Your task to perform on an android device: toggle data saver in the chrome app Image 0: 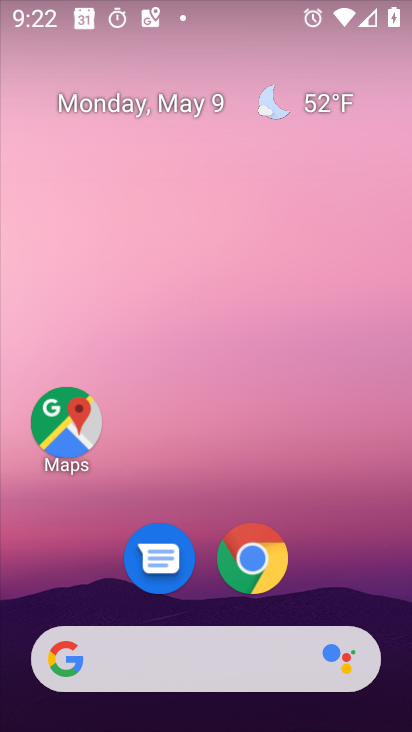
Step 0: click (269, 572)
Your task to perform on an android device: toggle data saver in the chrome app Image 1: 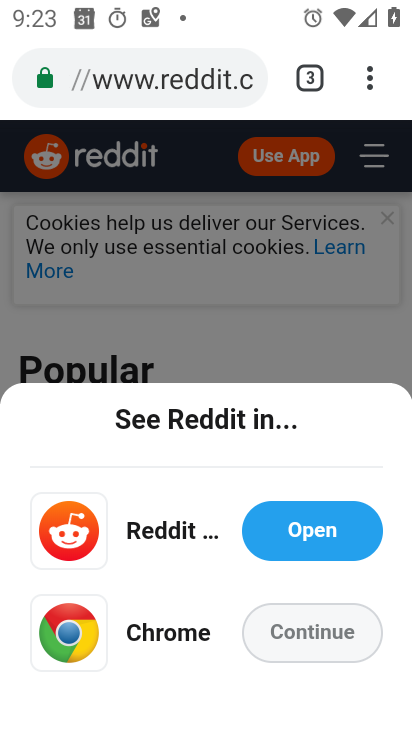
Step 1: drag from (375, 75) to (111, 621)
Your task to perform on an android device: toggle data saver in the chrome app Image 2: 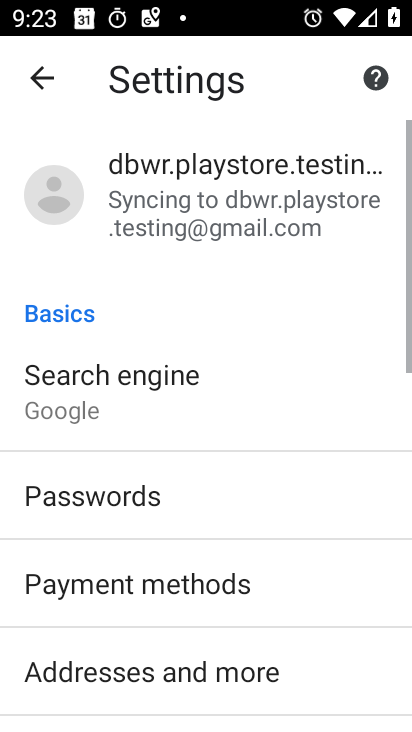
Step 2: drag from (104, 646) to (190, 351)
Your task to perform on an android device: toggle data saver in the chrome app Image 3: 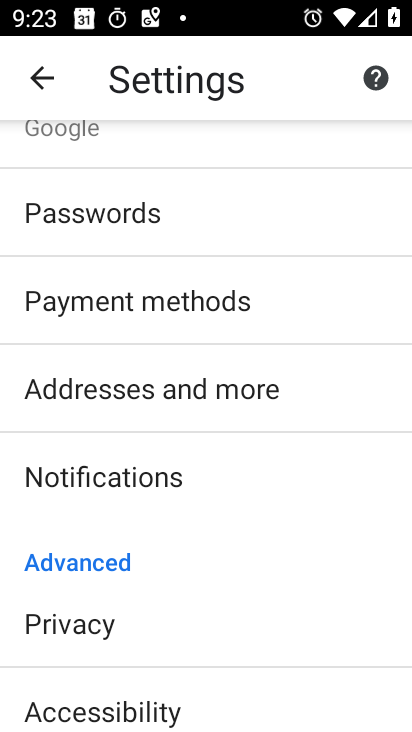
Step 3: drag from (137, 716) to (195, 389)
Your task to perform on an android device: toggle data saver in the chrome app Image 4: 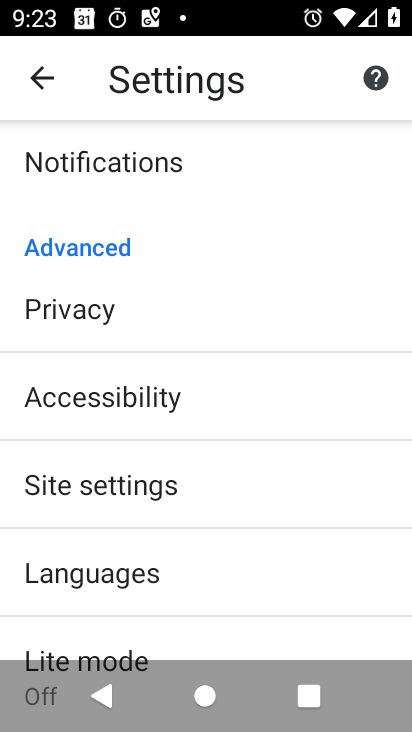
Step 4: drag from (126, 631) to (172, 317)
Your task to perform on an android device: toggle data saver in the chrome app Image 5: 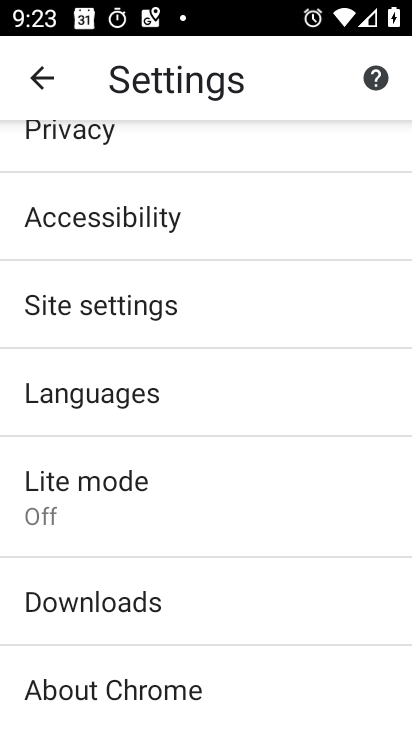
Step 5: click (143, 489)
Your task to perform on an android device: toggle data saver in the chrome app Image 6: 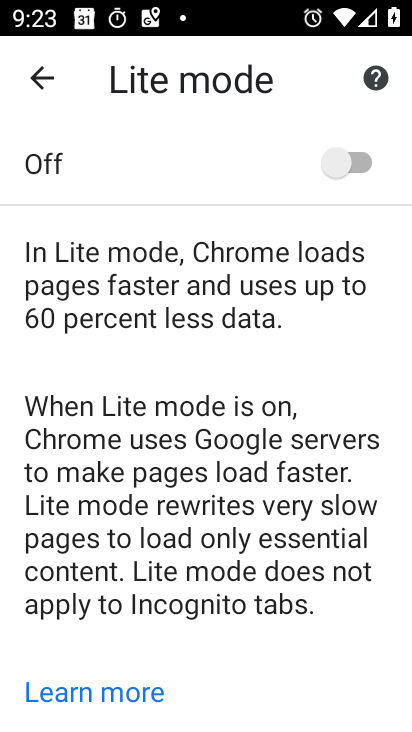
Step 6: click (322, 162)
Your task to perform on an android device: toggle data saver in the chrome app Image 7: 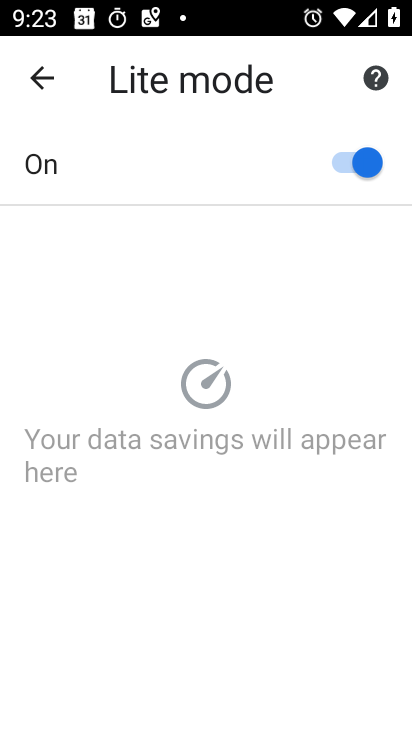
Step 7: task complete